Your task to perform on an android device: uninstall "Adobe Acrobat Reader: Edit PDF" Image 0: 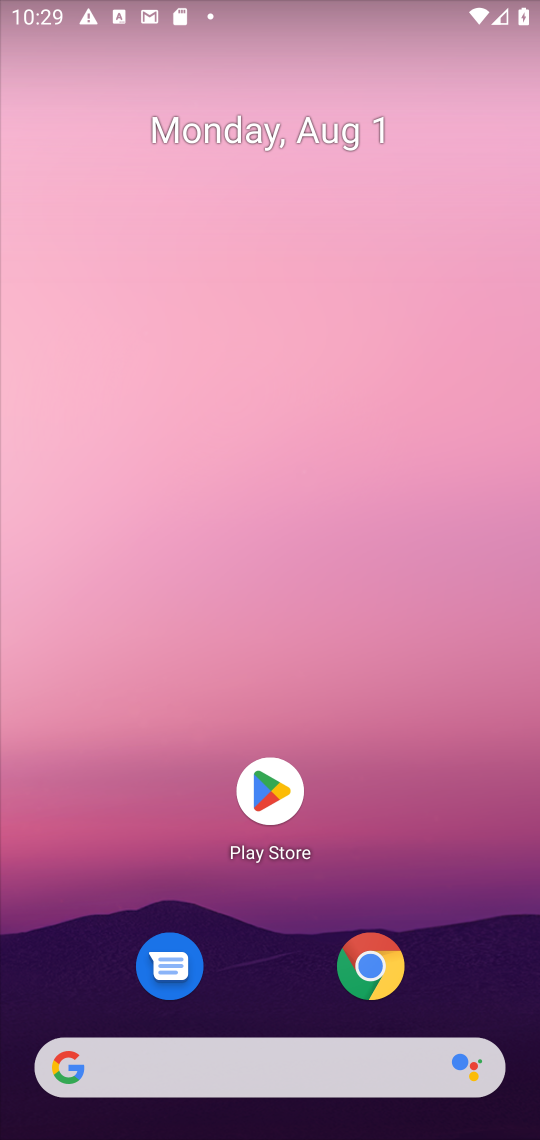
Step 0: click (279, 801)
Your task to perform on an android device: uninstall "Adobe Acrobat Reader: Edit PDF" Image 1: 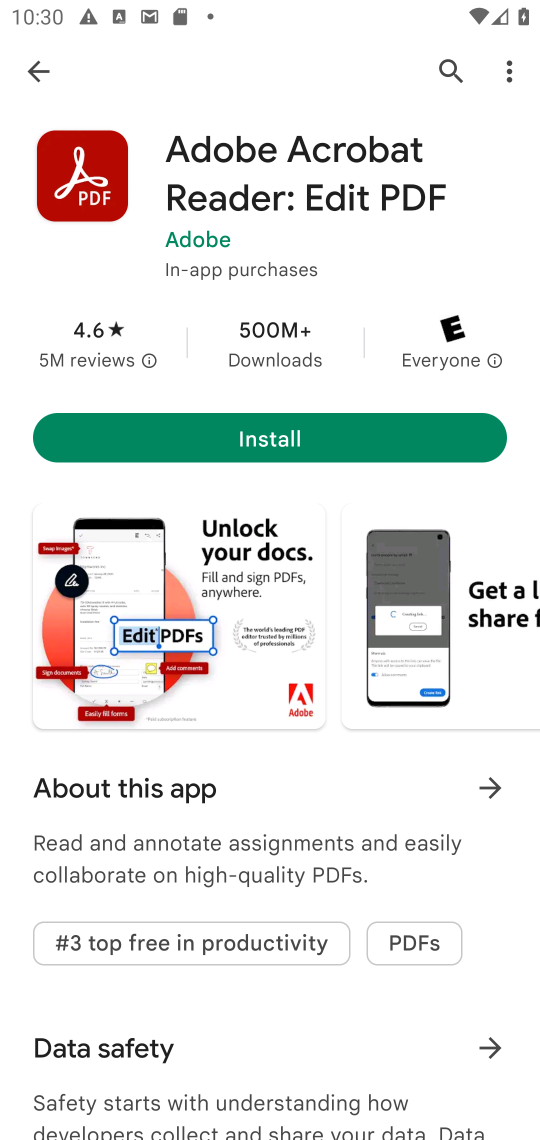
Step 1: task complete